Your task to perform on an android device: Show the shopping cart on walmart. Add "panasonic triple a" to the cart on walmart, then select checkout. Image 0: 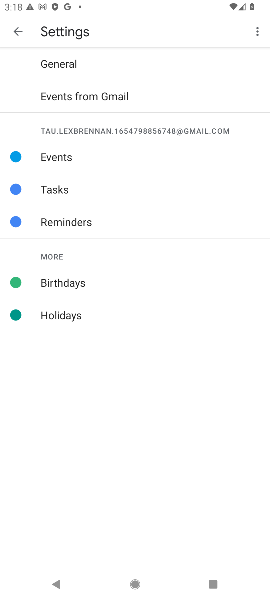
Step 0: press home button
Your task to perform on an android device: Show the shopping cart on walmart. Add "panasonic triple a" to the cart on walmart, then select checkout. Image 1: 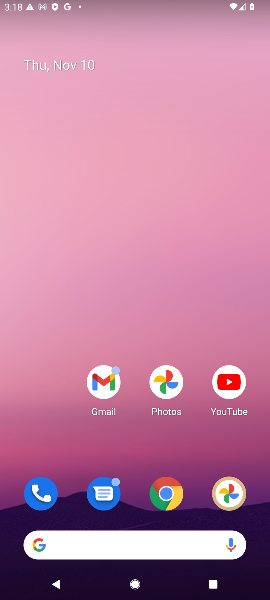
Step 1: drag from (94, 530) to (119, 149)
Your task to perform on an android device: Show the shopping cart on walmart. Add "panasonic triple a" to the cart on walmart, then select checkout. Image 2: 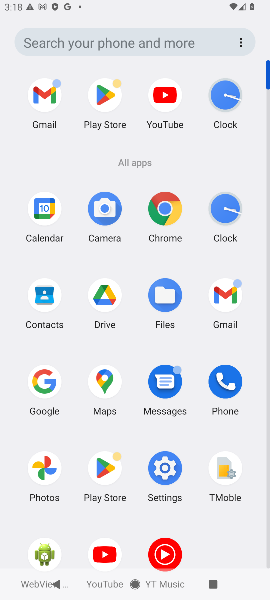
Step 2: click (36, 375)
Your task to perform on an android device: Show the shopping cart on walmart. Add "panasonic triple a" to the cart on walmart, then select checkout. Image 3: 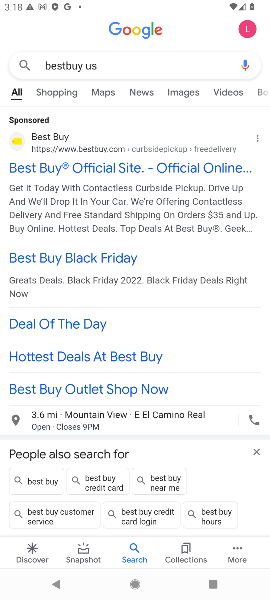
Step 3: click (95, 62)
Your task to perform on an android device: Show the shopping cart on walmart. Add "panasonic triple a" to the cart on walmart, then select checkout. Image 4: 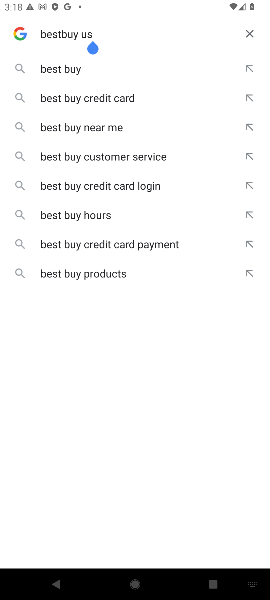
Step 4: click (246, 34)
Your task to perform on an android device: Show the shopping cart on walmart. Add "panasonic triple a" to the cart on walmart, then select checkout. Image 5: 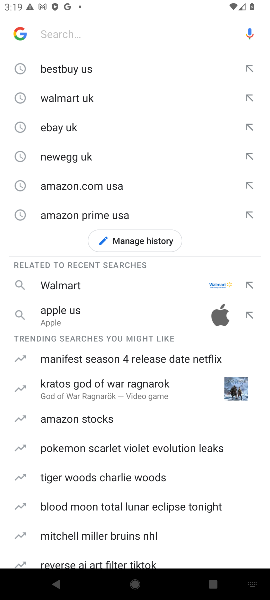
Step 5: click (82, 27)
Your task to perform on an android device: Show the shopping cart on walmart. Add "panasonic triple a" to the cart on walmart, then select checkout. Image 6: 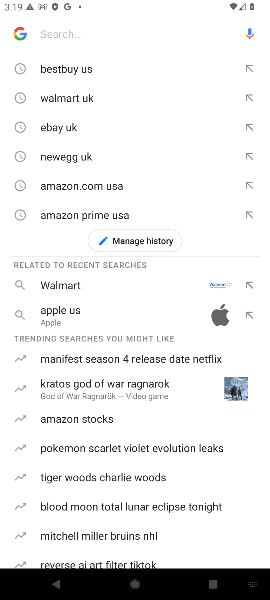
Step 6: type "walmart "
Your task to perform on an android device: Show the shopping cart on walmart. Add "panasonic triple a" to the cart on walmart, then select checkout. Image 7: 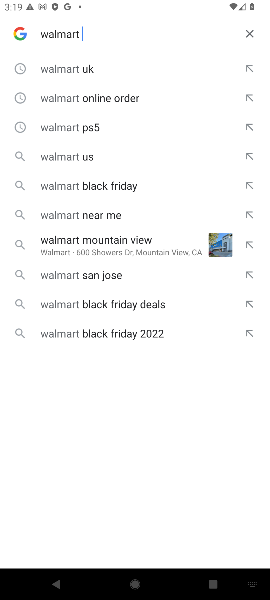
Step 7: click (45, 59)
Your task to perform on an android device: Show the shopping cart on walmart. Add "panasonic triple a" to the cart on walmart, then select checkout. Image 8: 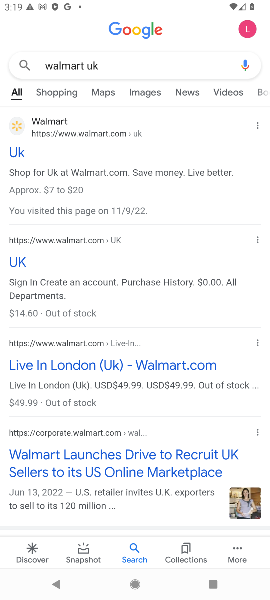
Step 8: click (22, 123)
Your task to perform on an android device: Show the shopping cart on walmart. Add "panasonic triple a" to the cart on walmart, then select checkout. Image 9: 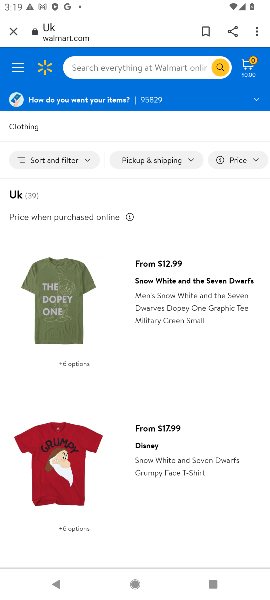
Step 9: click (119, 66)
Your task to perform on an android device: Show the shopping cart on walmart. Add "panasonic triple a" to the cart on walmart, then select checkout. Image 10: 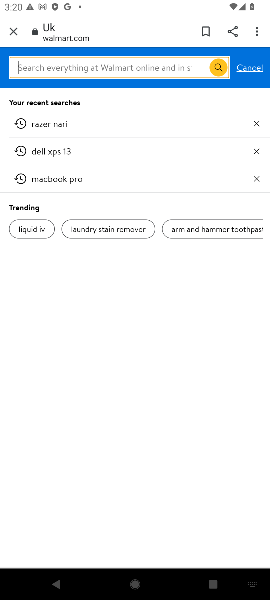
Step 10: click (91, 66)
Your task to perform on an android device: Show the shopping cart on walmart. Add "panasonic triple a" to the cart on walmart, then select checkout. Image 11: 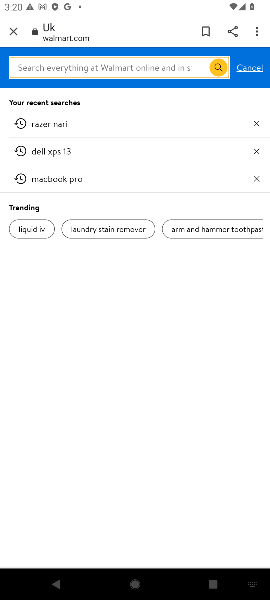
Step 11: click (91, 66)
Your task to perform on an android device: Show the shopping cart on walmart. Add "panasonic triple a" to the cart on walmart, then select checkout. Image 12: 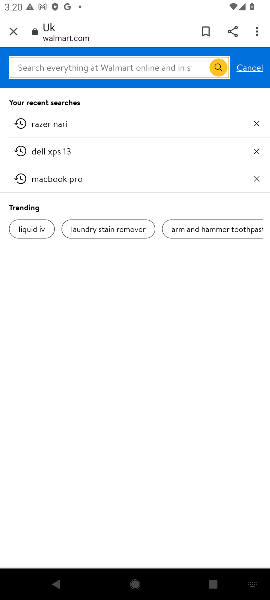
Step 12: type "triple "
Your task to perform on an android device: Show the shopping cart on walmart. Add "panasonic triple a" to the cart on walmart, then select checkout. Image 13: 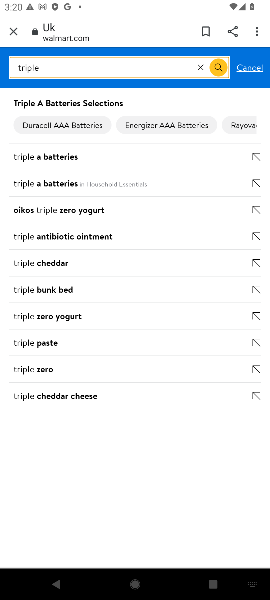
Step 13: click (69, 154)
Your task to perform on an android device: Show the shopping cart on walmart. Add "panasonic triple a" to the cart on walmart, then select checkout. Image 14: 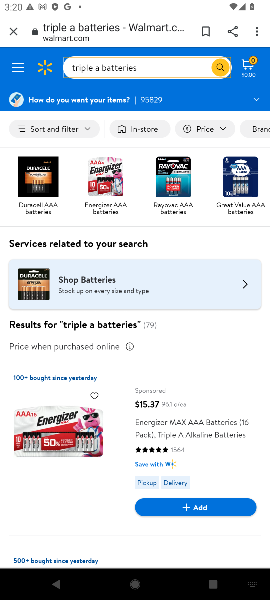
Step 14: click (191, 508)
Your task to perform on an android device: Show the shopping cart on walmart. Add "panasonic triple a" to the cart on walmart, then select checkout. Image 15: 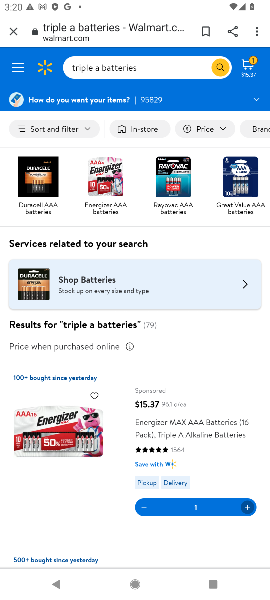
Step 15: task complete